Your task to perform on an android device: check android version Image 0: 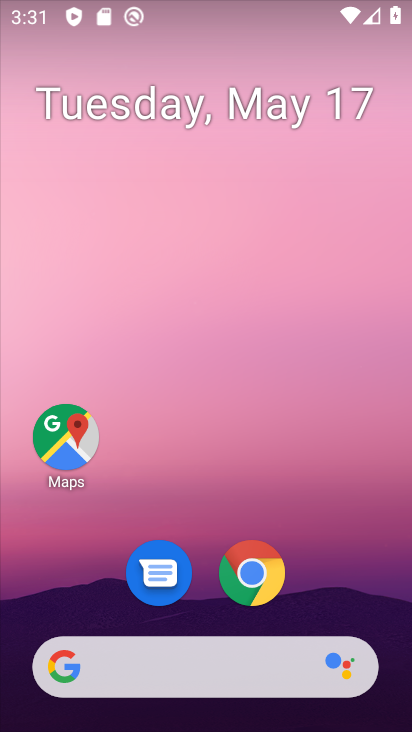
Step 0: drag from (375, 586) to (320, 172)
Your task to perform on an android device: check android version Image 1: 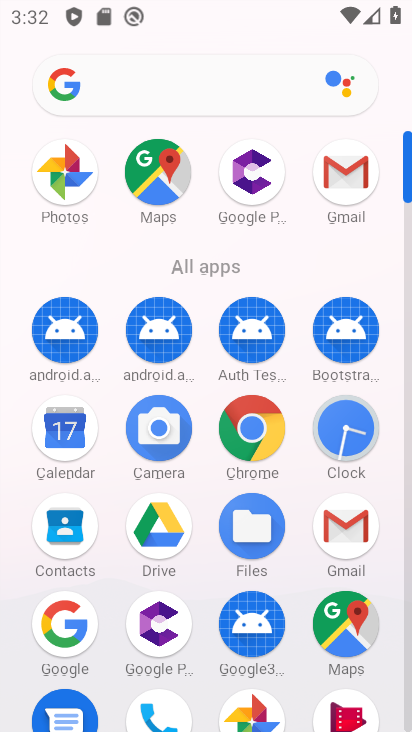
Step 1: click (411, 696)
Your task to perform on an android device: check android version Image 2: 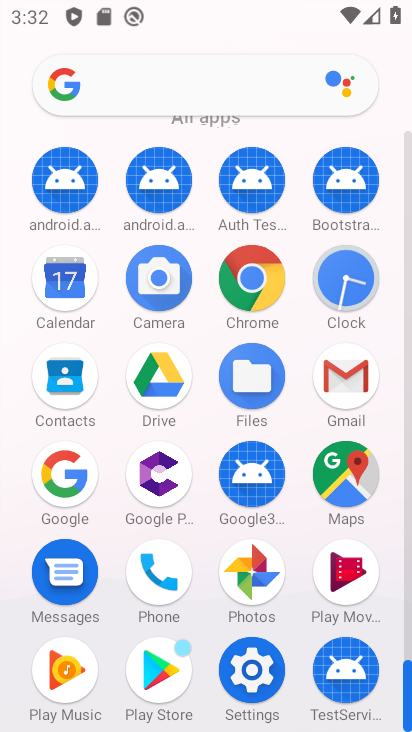
Step 2: click (263, 671)
Your task to perform on an android device: check android version Image 3: 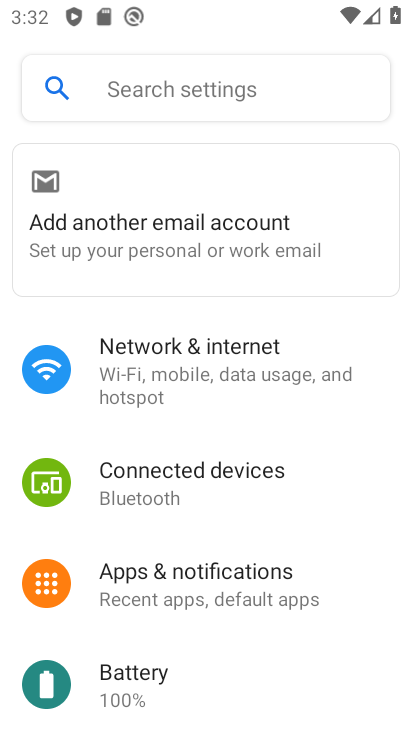
Step 3: task complete